Your task to perform on an android device: empty trash in google photos Image 0: 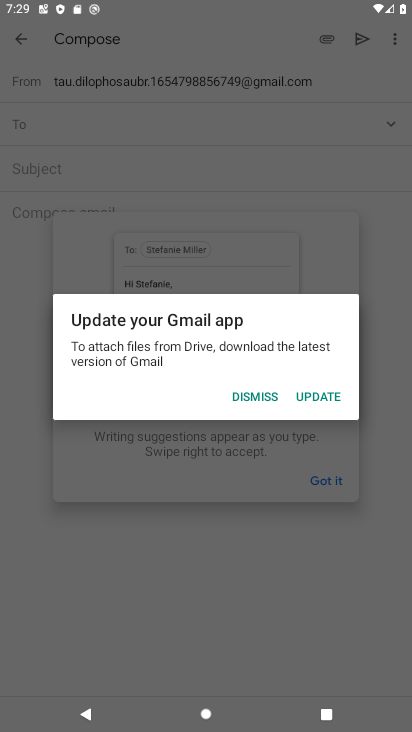
Step 0: press home button
Your task to perform on an android device: empty trash in google photos Image 1: 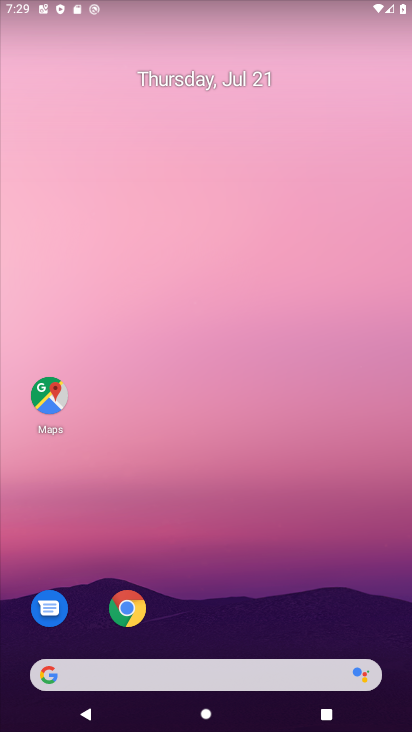
Step 1: drag from (185, 671) to (215, 126)
Your task to perform on an android device: empty trash in google photos Image 2: 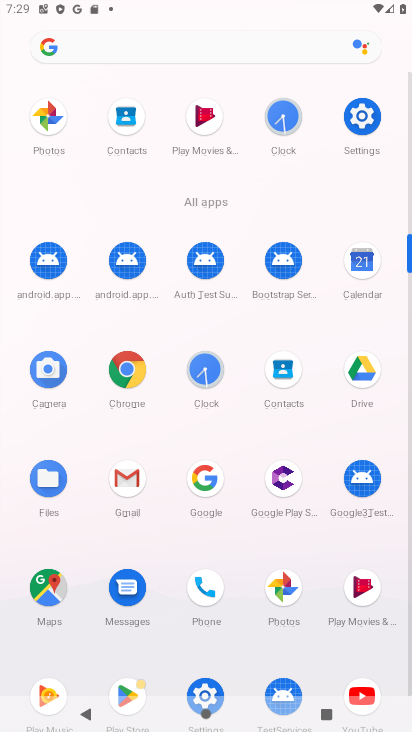
Step 2: click (50, 117)
Your task to perform on an android device: empty trash in google photos Image 3: 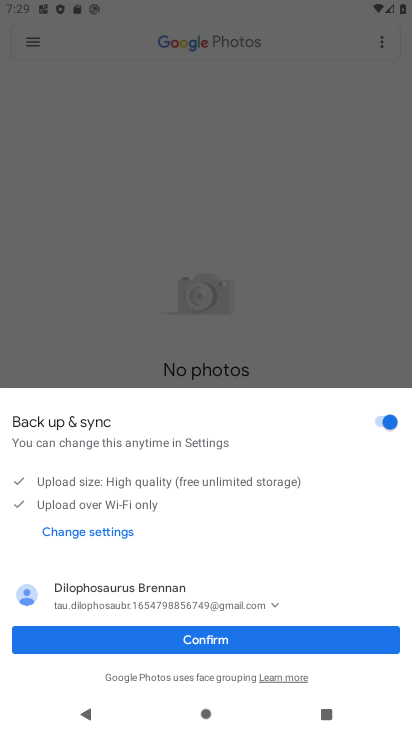
Step 3: click (217, 638)
Your task to perform on an android device: empty trash in google photos Image 4: 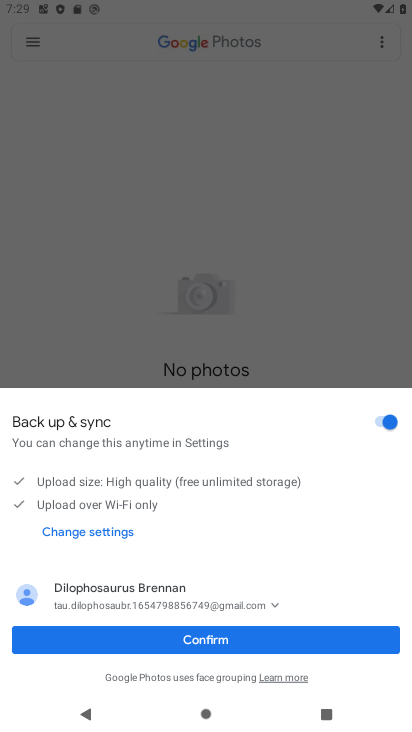
Step 4: click (217, 638)
Your task to perform on an android device: empty trash in google photos Image 5: 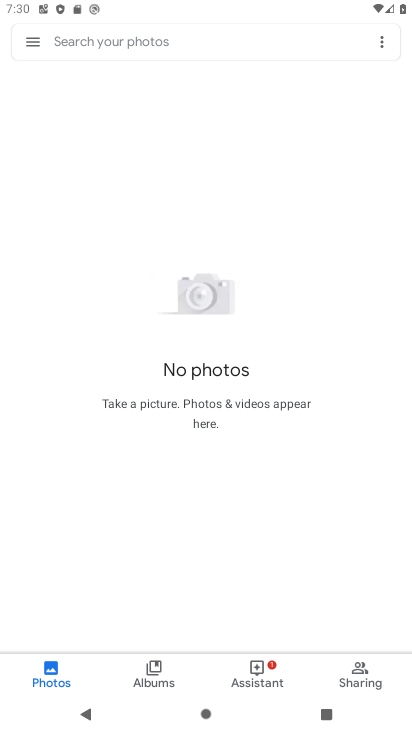
Step 5: click (32, 41)
Your task to perform on an android device: empty trash in google photos Image 6: 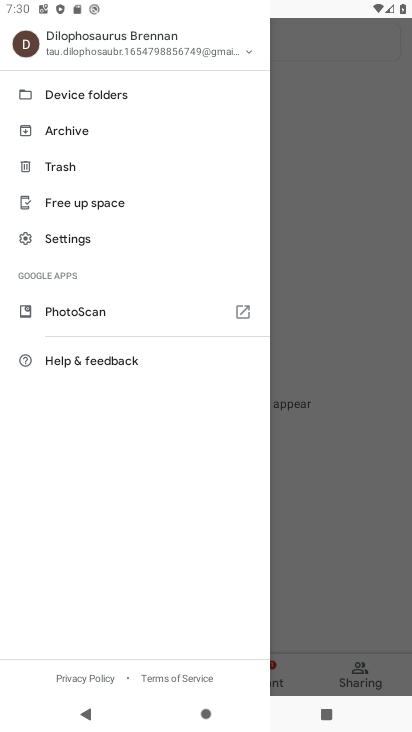
Step 6: click (73, 164)
Your task to perform on an android device: empty trash in google photos Image 7: 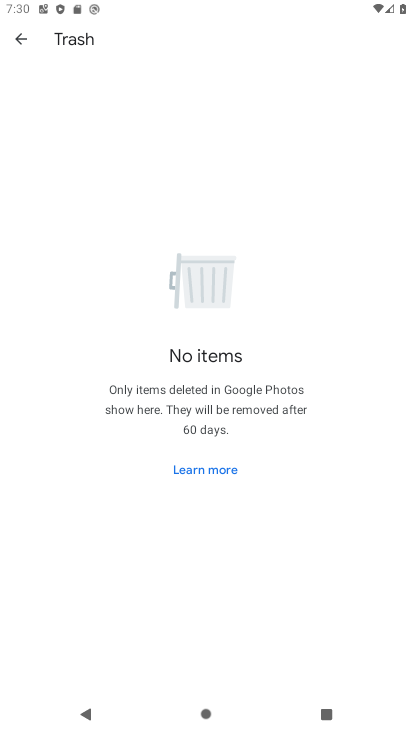
Step 7: task complete